Your task to perform on an android device: check the backup settings in the google photos Image 0: 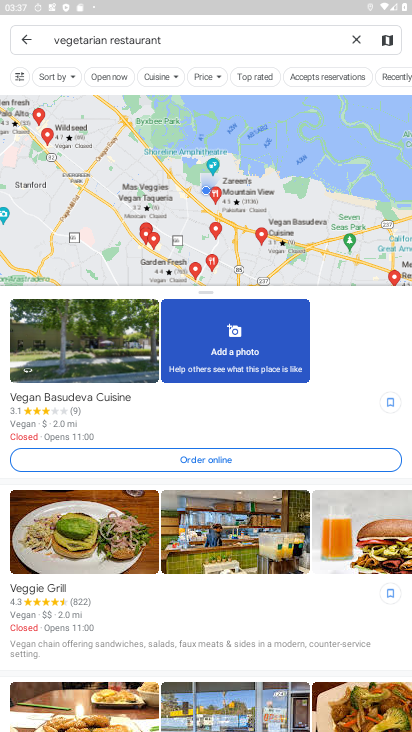
Step 0: press home button
Your task to perform on an android device: check the backup settings in the google photos Image 1: 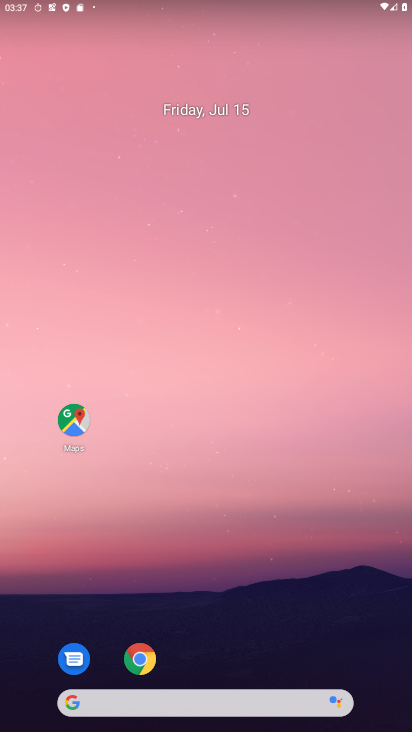
Step 1: drag from (214, 584) to (225, 97)
Your task to perform on an android device: check the backup settings in the google photos Image 2: 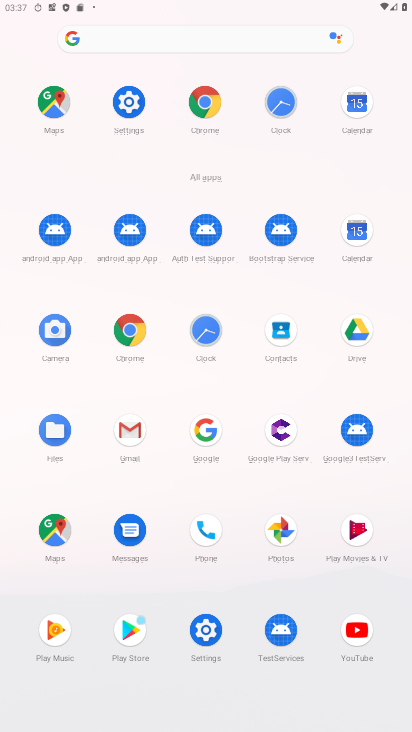
Step 2: click (279, 533)
Your task to perform on an android device: check the backup settings in the google photos Image 3: 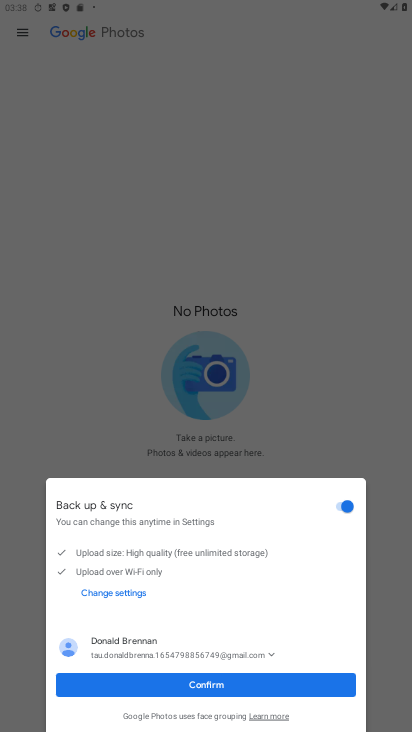
Step 3: click (282, 688)
Your task to perform on an android device: check the backup settings in the google photos Image 4: 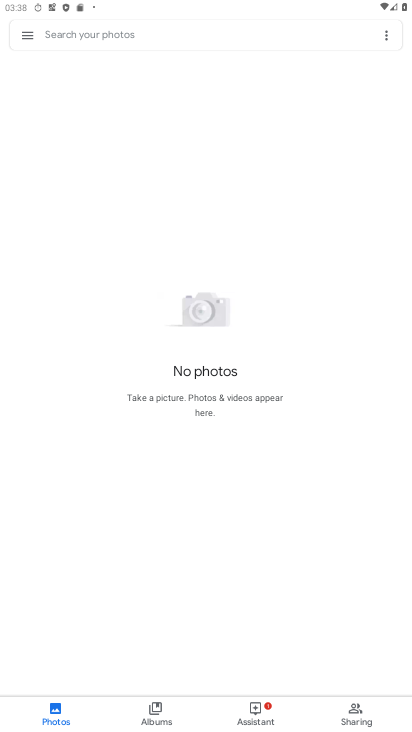
Step 4: click (24, 32)
Your task to perform on an android device: check the backup settings in the google photos Image 5: 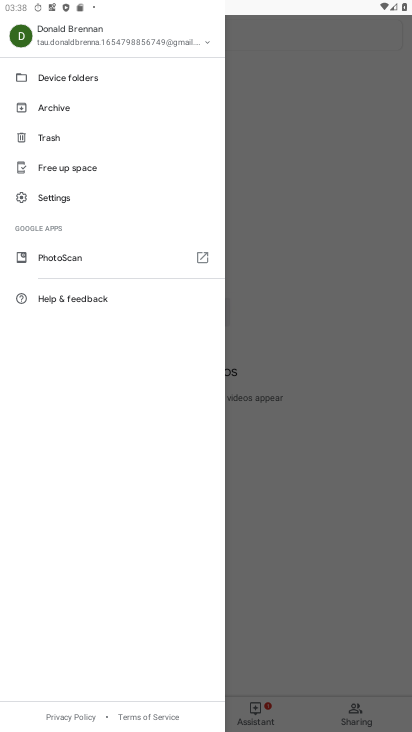
Step 5: click (60, 74)
Your task to perform on an android device: check the backup settings in the google photos Image 6: 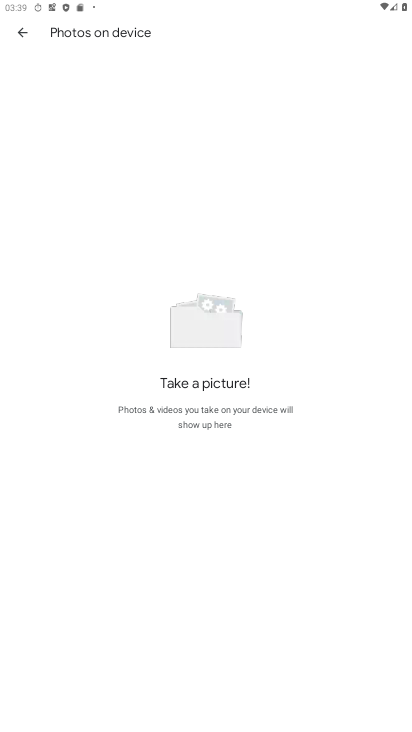
Step 6: task complete